Your task to perform on an android device: Go to accessibility settings Image 0: 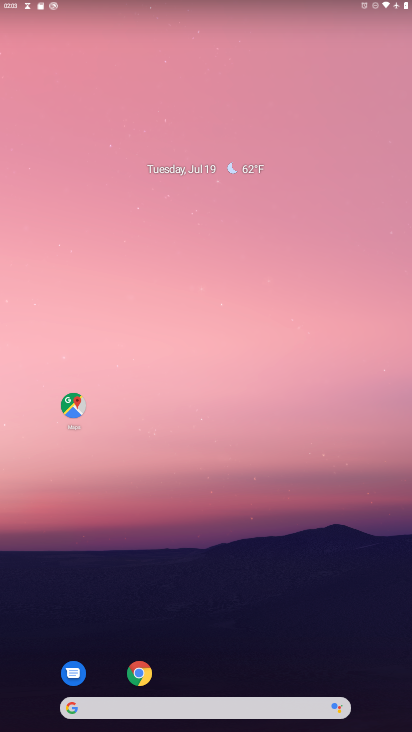
Step 0: drag from (251, 637) to (222, 33)
Your task to perform on an android device: Go to accessibility settings Image 1: 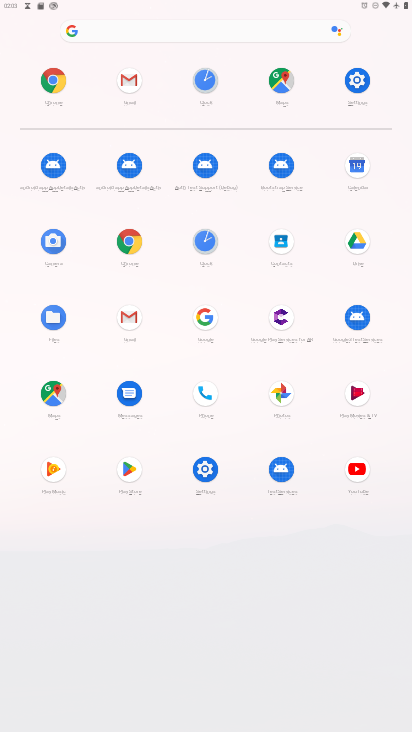
Step 1: click (362, 80)
Your task to perform on an android device: Go to accessibility settings Image 2: 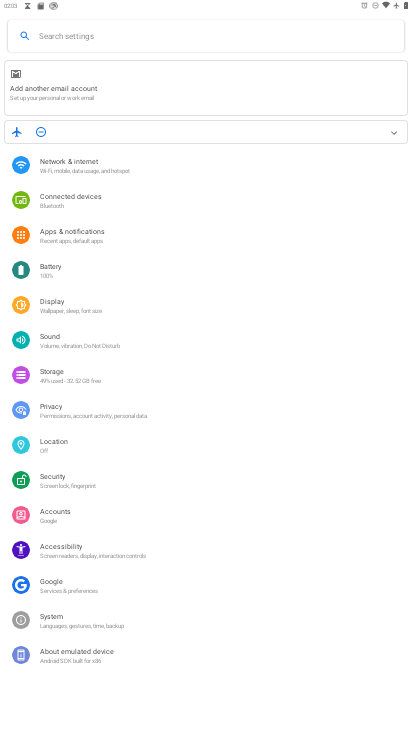
Step 2: click (83, 543)
Your task to perform on an android device: Go to accessibility settings Image 3: 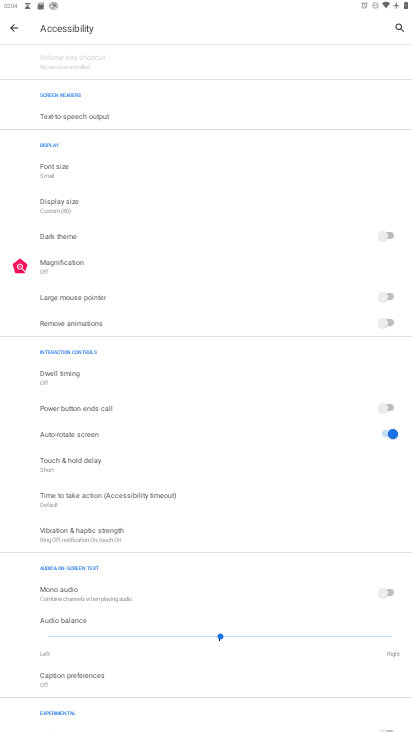
Step 3: task complete